Your task to perform on an android device: Search for vegetarian restaurants on Maps Image 0: 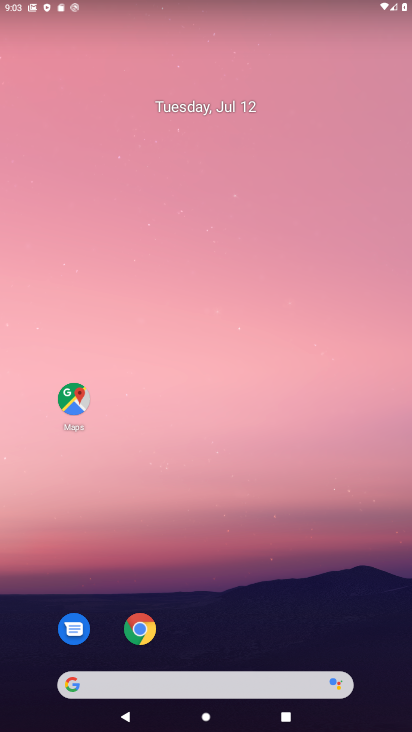
Step 0: drag from (194, 659) to (273, 139)
Your task to perform on an android device: Search for vegetarian restaurants on Maps Image 1: 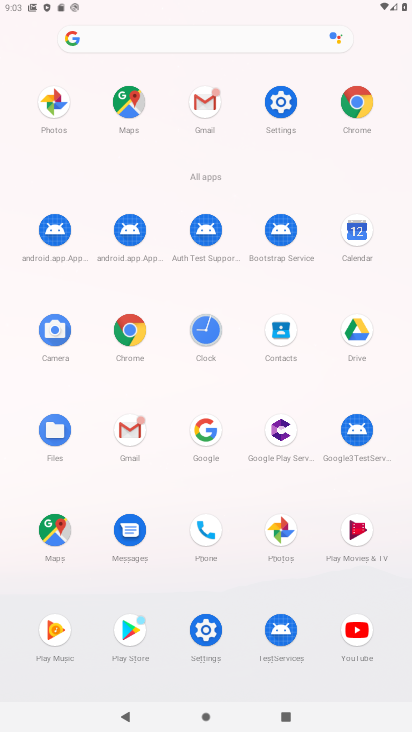
Step 1: click (50, 528)
Your task to perform on an android device: Search for vegetarian restaurants on Maps Image 2: 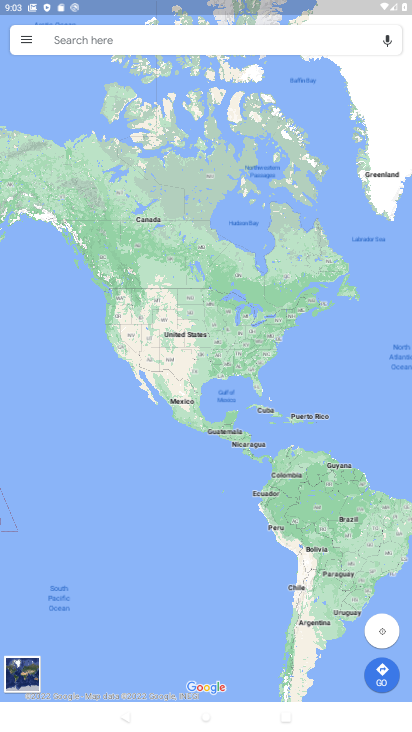
Step 2: click (145, 42)
Your task to perform on an android device: Search for vegetarian restaurants on Maps Image 3: 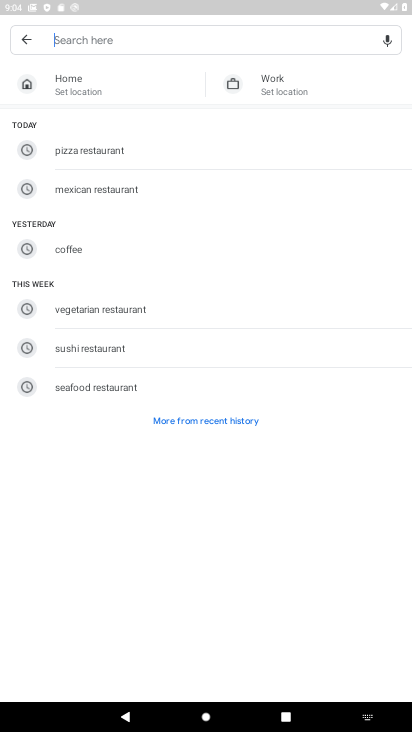
Step 3: type "vegetarian restaurants"
Your task to perform on an android device: Search for vegetarian restaurants on Maps Image 4: 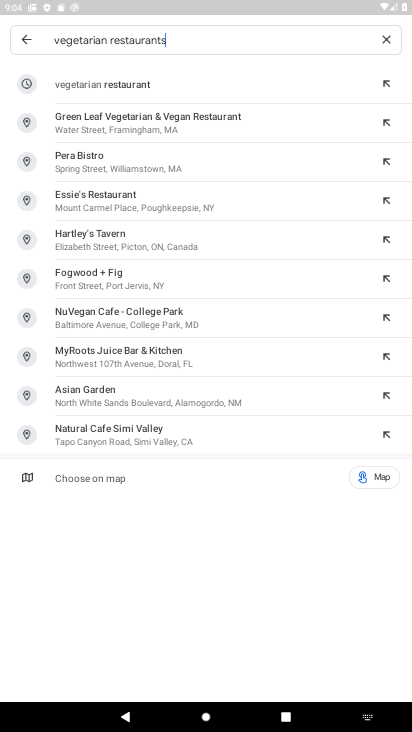
Step 4: click (163, 85)
Your task to perform on an android device: Search for vegetarian restaurants on Maps Image 5: 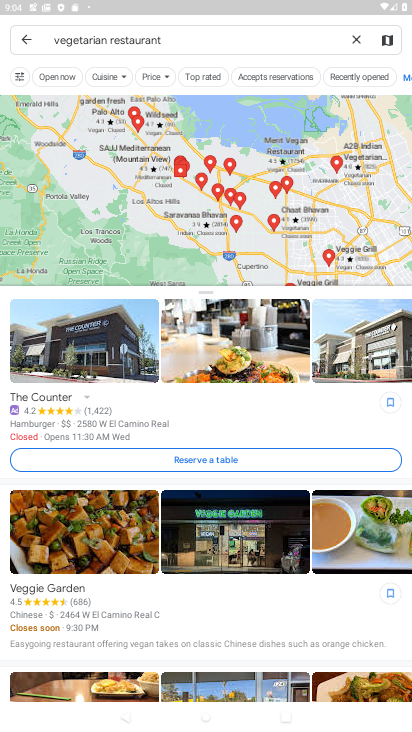
Step 5: task complete